Your task to perform on an android device: turn on showing notifications on the lock screen Image 0: 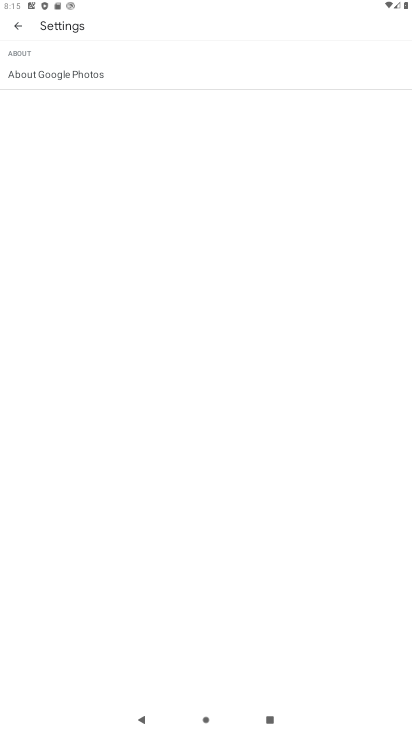
Step 0: press home button
Your task to perform on an android device: turn on showing notifications on the lock screen Image 1: 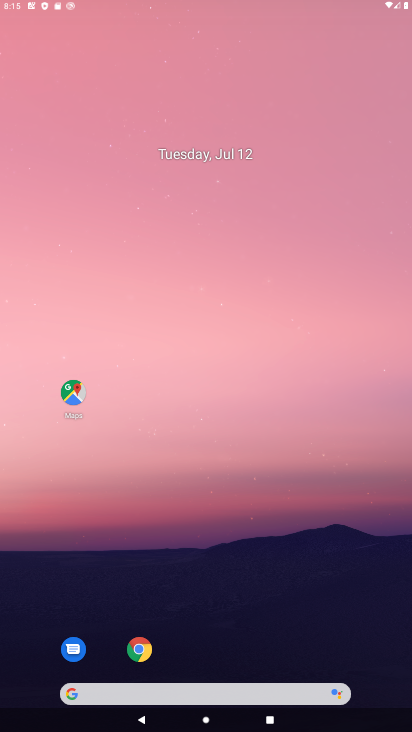
Step 1: drag from (189, 643) to (232, 100)
Your task to perform on an android device: turn on showing notifications on the lock screen Image 2: 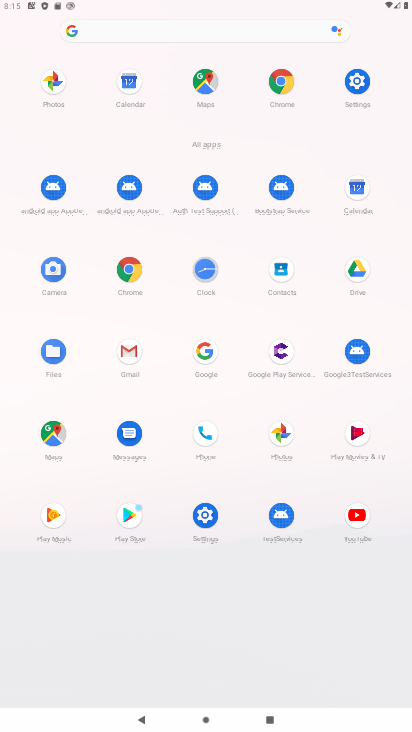
Step 2: click (355, 80)
Your task to perform on an android device: turn on showing notifications on the lock screen Image 3: 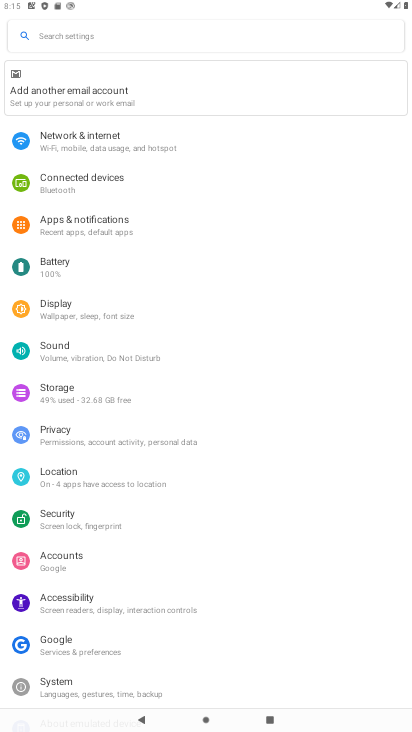
Step 3: click (65, 228)
Your task to perform on an android device: turn on showing notifications on the lock screen Image 4: 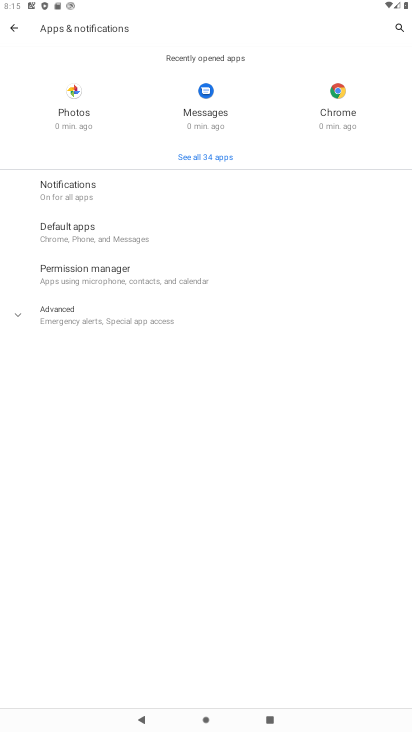
Step 4: click (92, 186)
Your task to perform on an android device: turn on showing notifications on the lock screen Image 5: 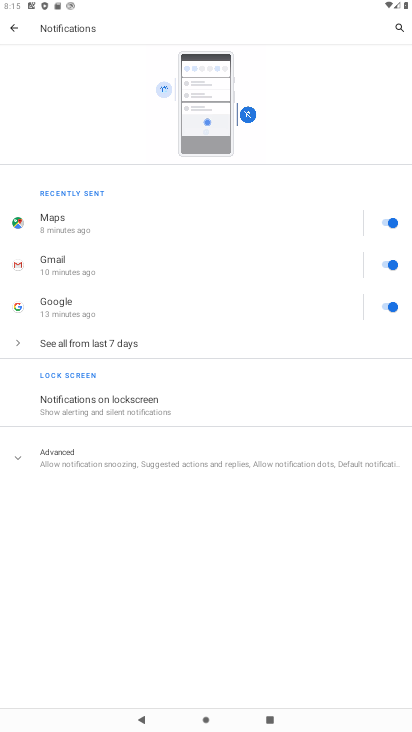
Step 5: click (84, 401)
Your task to perform on an android device: turn on showing notifications on the lock screen Image 6: 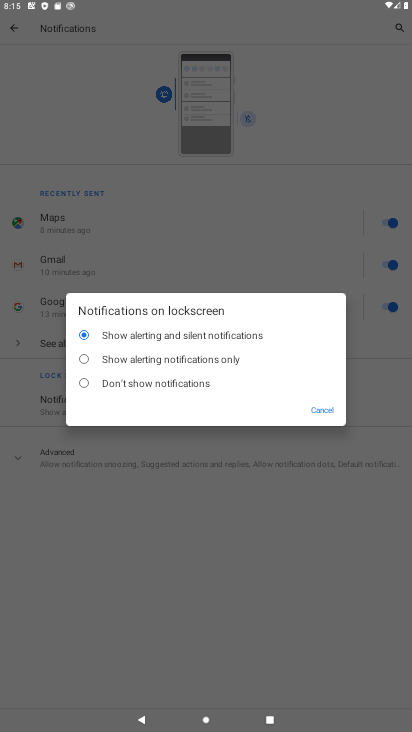
Step 6: task complete